Your task to perform on an android device: Clear all items from cart on newegg.com. Search for "usb-a to usb-b" on newegg.com, select the first entry, add it to the cart, then select checkout. Image 0: 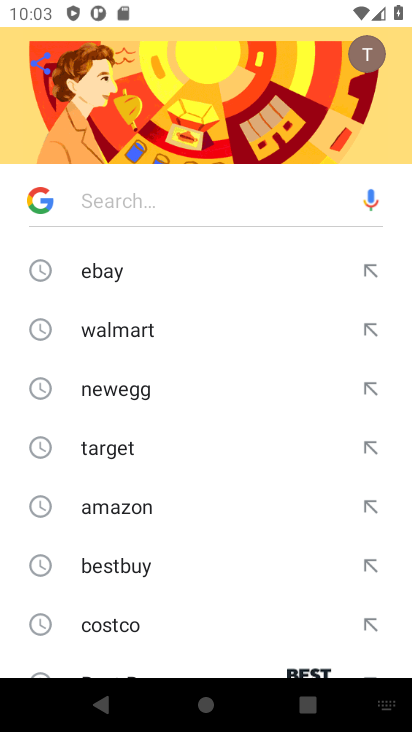
Step 0: type "newegg.com"
Your task to perform on an android device: Clear all items from cart on newegg.com. Search for "usb-a to usb-b" on newegg.com, select the first entry, add it to the cart, then select checkout. Image 1: 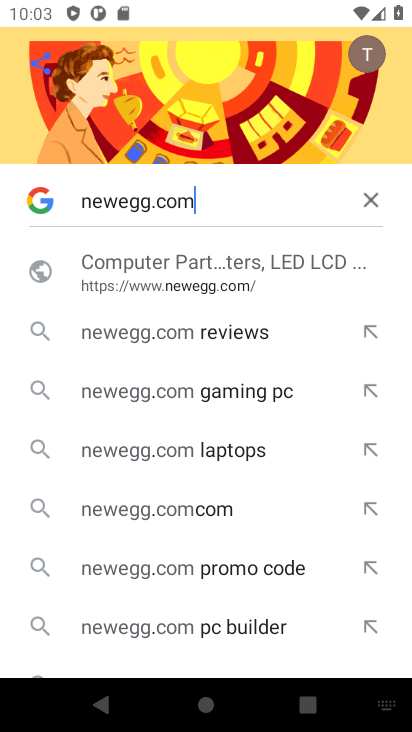
Step 1: click (154, 275)
Your task to perform on an android device: Clear all items from cart on newegg.com. Search for "usb-a to usb-b" on newegg.com, select the first entry, add it to the cart, then select checkout. Image 2: 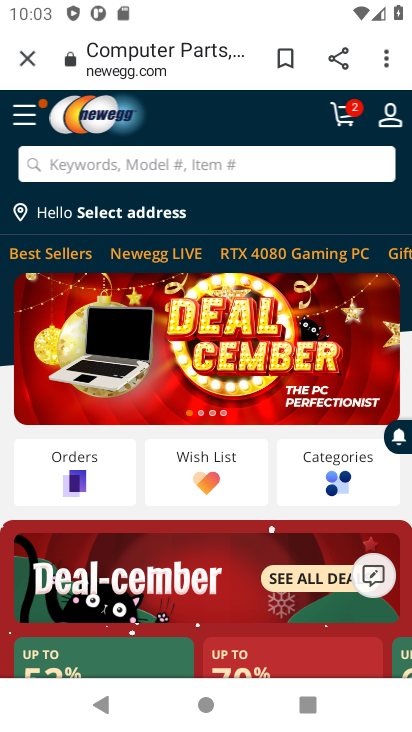
Step 2: click (349, 114)
Your task to perform on an android device: Clear all items from cart on newegg.com. Search for "usb-a to usb-b" on newegg.com, select the first entry, add it to the cart, then select checkout. Image 3: 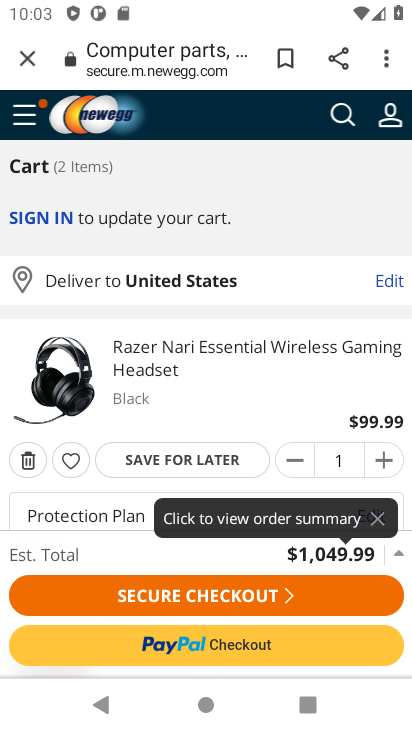
Step 3: click (27, 464)
Your task to perform on an android device: Clear all items from cart on newegg.com. Search for "usb-a to usb-b" on newegg.com, select the first entry, add it to the cart, then select checkout. Image 4: 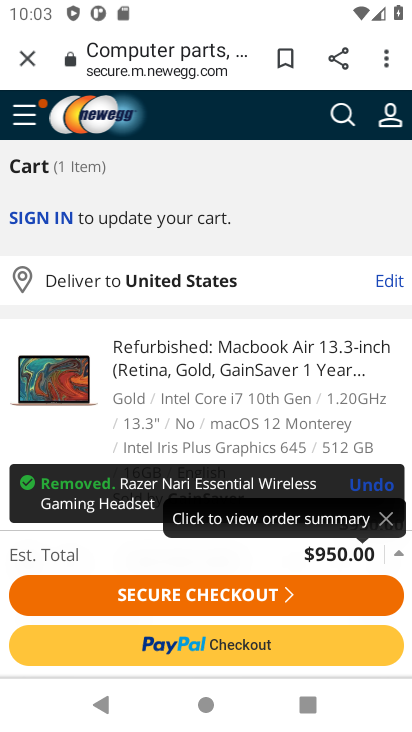
Step 4: drag from (71, 432) to (68, 325)
Your task to perform on an android device: Clear all items from cart on newegg.com. Search for "usb-a to usb-b" on newegg.com, select the first entry, add it to the cart, then select checkout. Image 5: 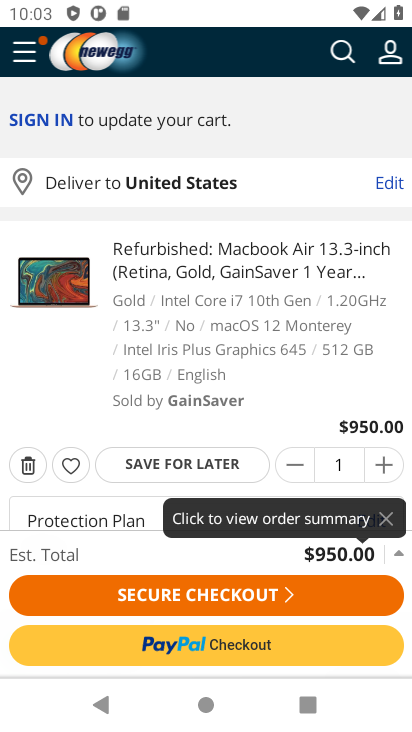
Step 5: click (31, 465)
Your task to perform on an android device: Clear all items from cart on newegg.com. Search for "usb-a to usb-b" on newegg.com, select the first entry, add it to the cart, then select checkout. Image 6: 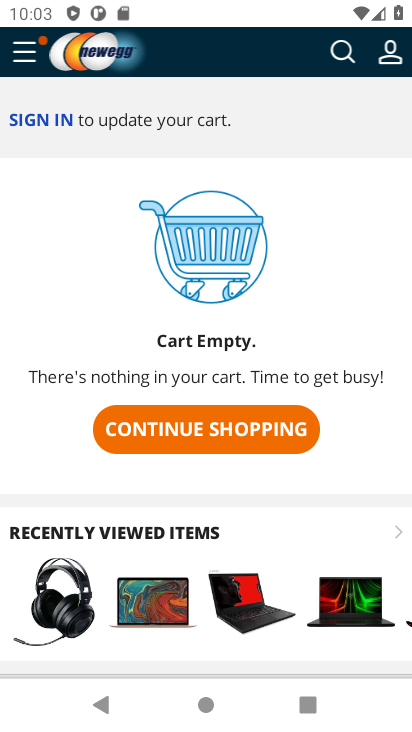
Step 6: click (342, 53)
Your task to perform on an android device: Clear all items from cart on newegg.com. Search for "usb-a to usb-b" on newegg.com, select the first entry, add it to the cart, then select checkout. Image 7: 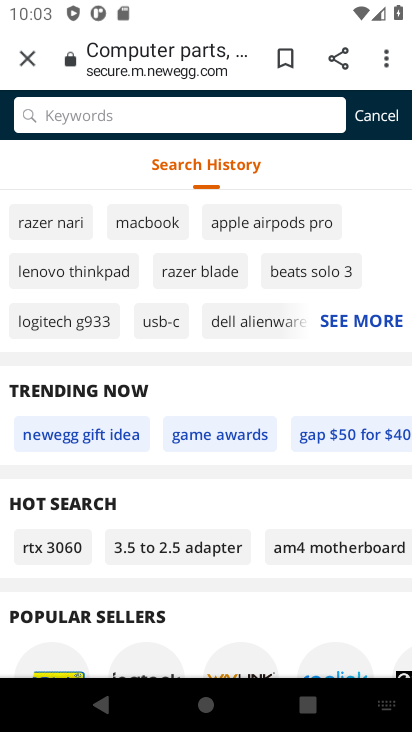
Step 7: type "usb-a to usb-b"
Your task to perform on an android device: Clear all items from cart on newegg.com. Search for "usb-a to usb-b" on newegg.com, select the first entry, add it to the cart, then select checkout. Image 8: 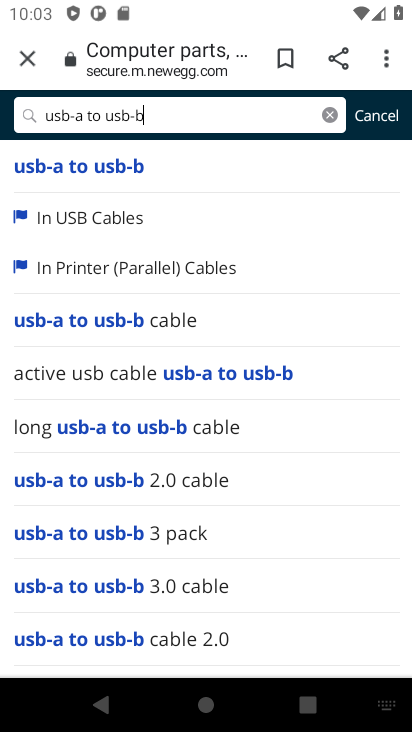
Step 8: click (122, 177)
Your task to perform on an android device: Clear all items from cart on newegg.com. Search for "usb-a to usb-b" on newegg.com, select the first entry, add it to the cart, then select checkout. Image 9: 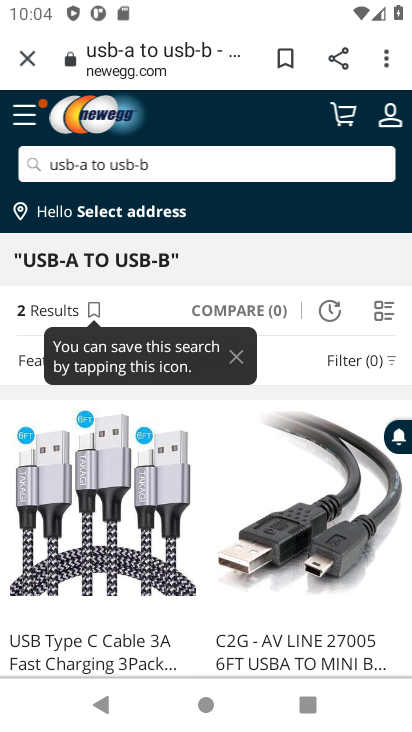
Step 9: task complete